Your task to perform on an android device: Open Google Maps Image 0: 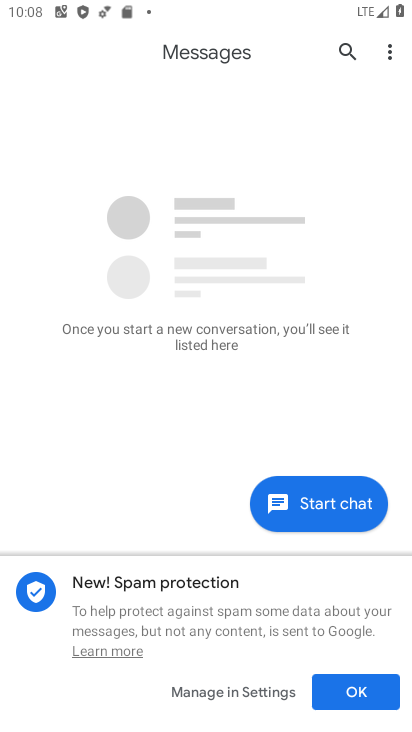
Step 0: press home button
Your task to perform on an android device: Open Google Maps Image 1: 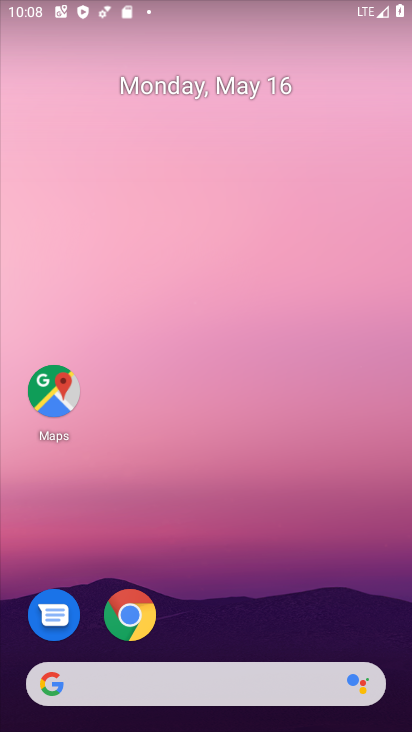
Step 1: drag from (220, 624) to (214, 152)
Your task to perform on an android device: Open Google Maps Image 2: 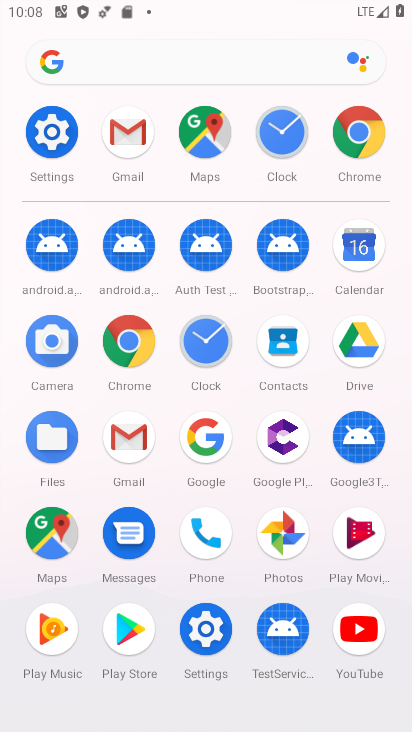
Step 2: click (57, 546)
Your task to perform on an android device: Open Google Maps Image 3: 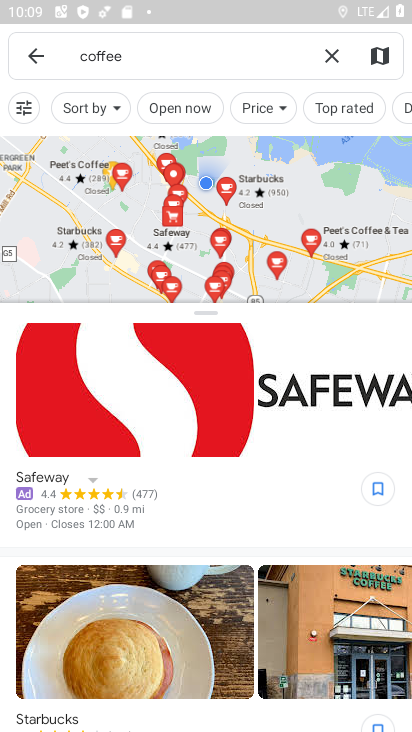
Step 3: task complete